Your task to perform on an android device: Go to location settings Image 0: 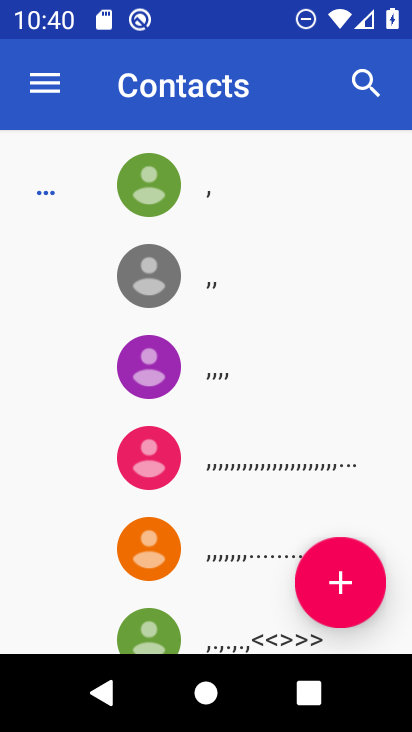
Step 0: press home button
Your task to perform on an android device: Go to location settings Image 1: 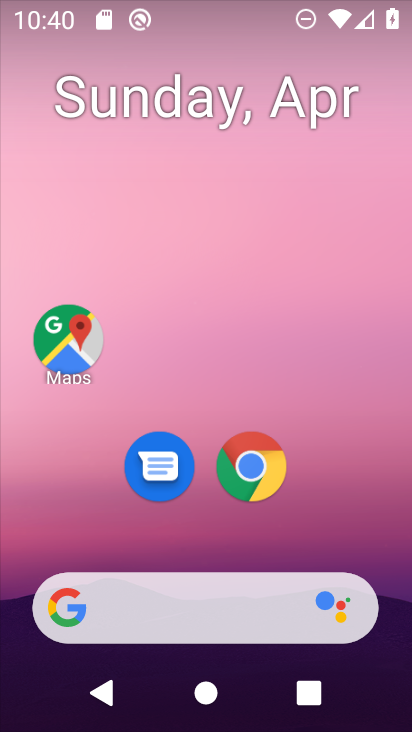
Step 1: drag from (362, 508) to (379, 106)
Your task to perform on an android device: Go to location settings Image 2: 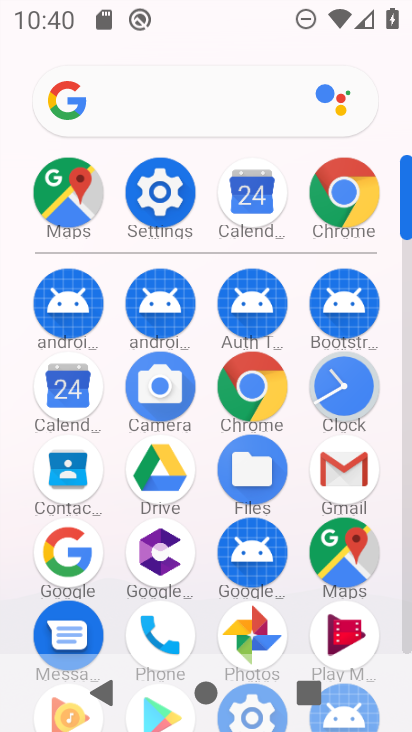
Step 2: click (152, 193)
Your task to perform on an android device: Go to location settings Image 3: 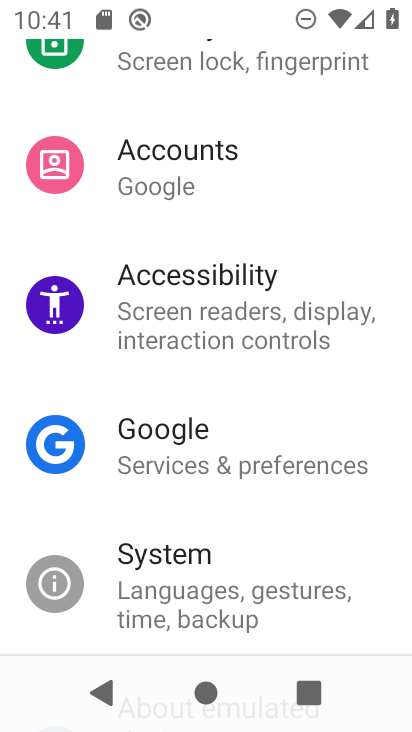
Step 3: drag from (367, 207) to (363, 400)
Your task to perform on an android device: Go to location settings Image 4: 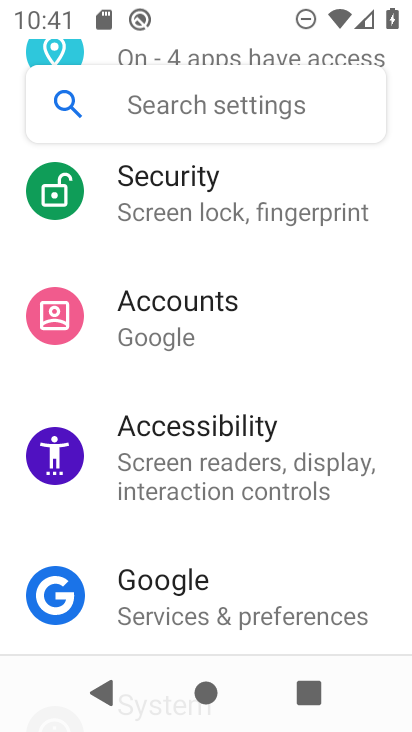
Step 4: drag from (386, 168) to (376, 369)
Your task to perform on an android device: Go to location settings Image 5: 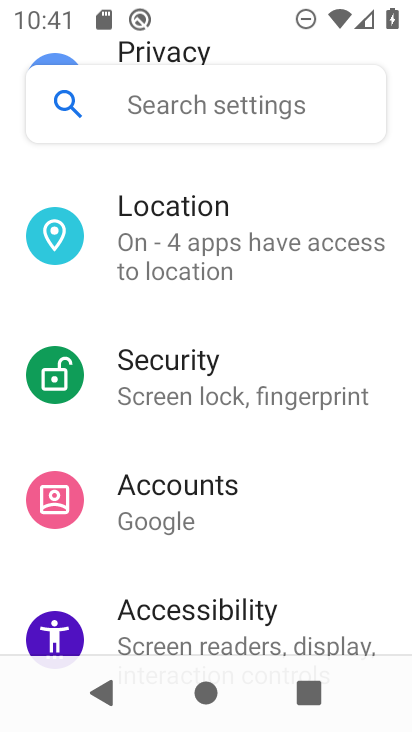
Step 5: drag from (387, 164) to (384, 366)
Your task to perform on an android device: Go to location settings Image 6: 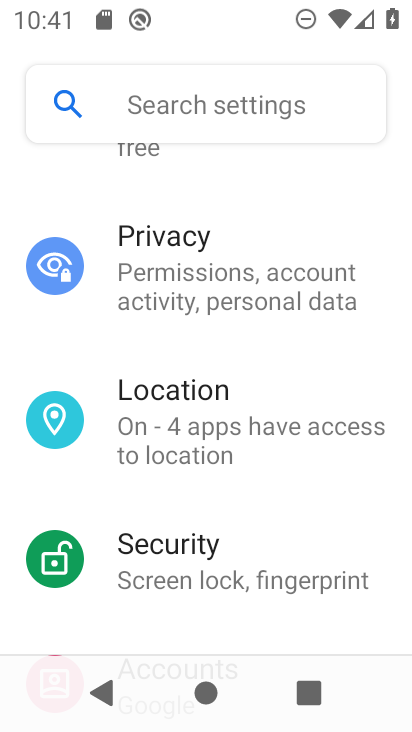
Step 6: click (248, 439)
Your task to perform on an android device: Go to location settings Image 7: 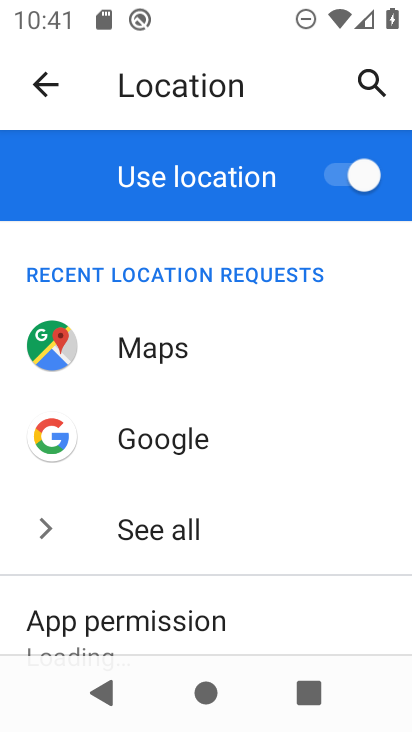
Step 7: task complete